Your task to perform on an android device: Go to Yahoo.com Image 0: 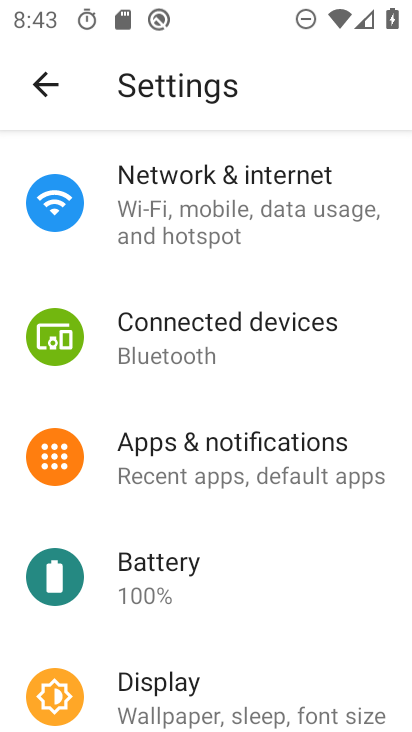
Step 0: press home button
Your task to perform on an android device: Go to Yahoo.com Image 1: 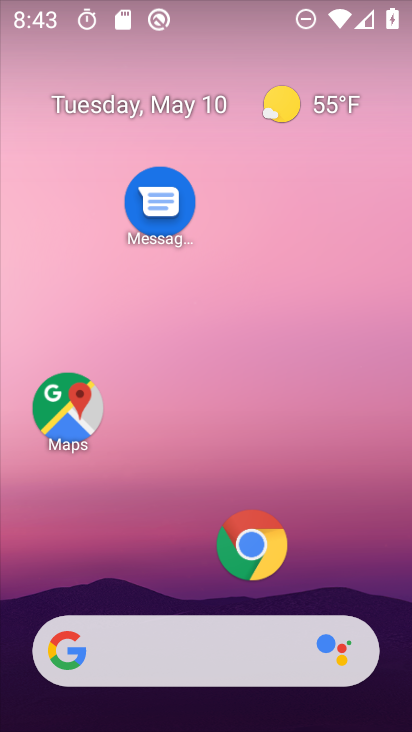
Step 1: drag from (160, 535) to (172, 169)
Your task to perform on an android device: Go to Yahoo.com Image 2: 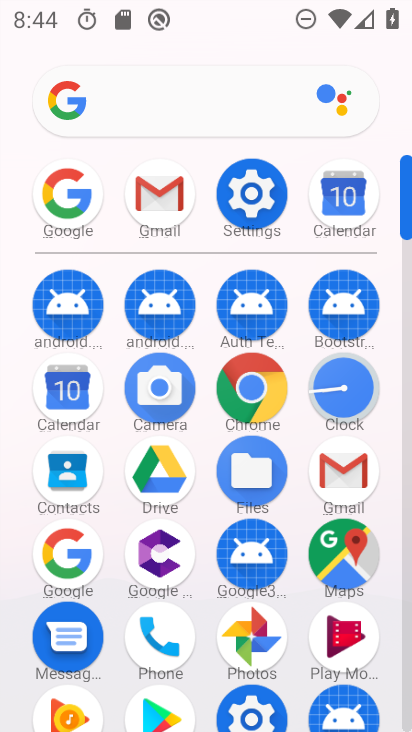
Step 2: click (78, 207)
Your task to perform on an android device: Go to Yahoo.com Image 3: 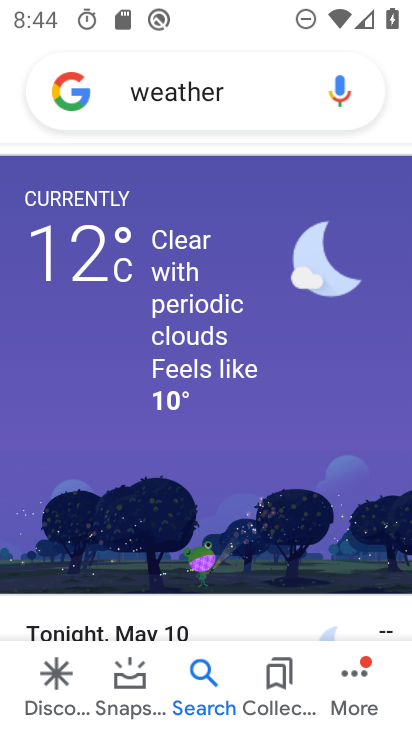
Step 3: click (250, 86)
Your task to perform on an android device: Go to Yahoo.com Image 4: 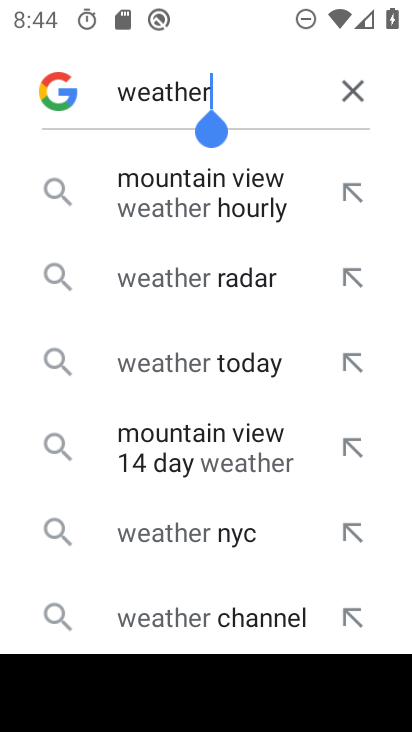
Step 4: click (348, 79)
Your task to perform on an android device: Go to Yahoo.com Image 5: 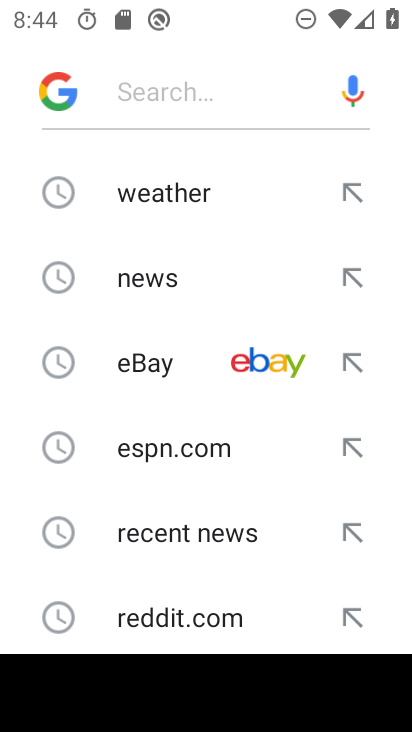
Step 5: type "Yahoo.com"
Your task to perform on an android device: Go to Yahoo.com Image 6: 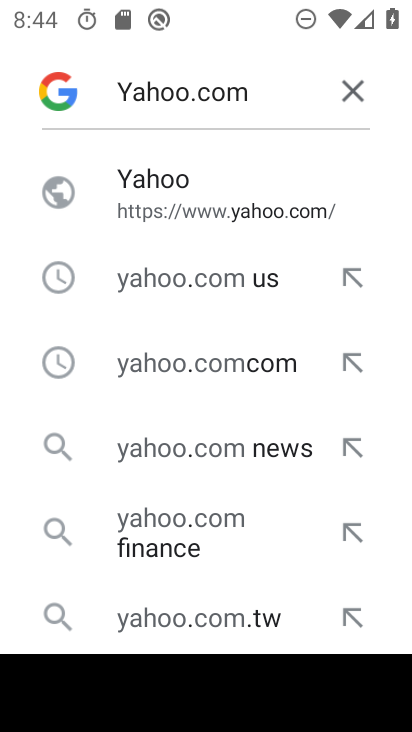
Step 6: click (163, 156)
Your task to perform on an android device: Go to Yahoo.com Image 7: 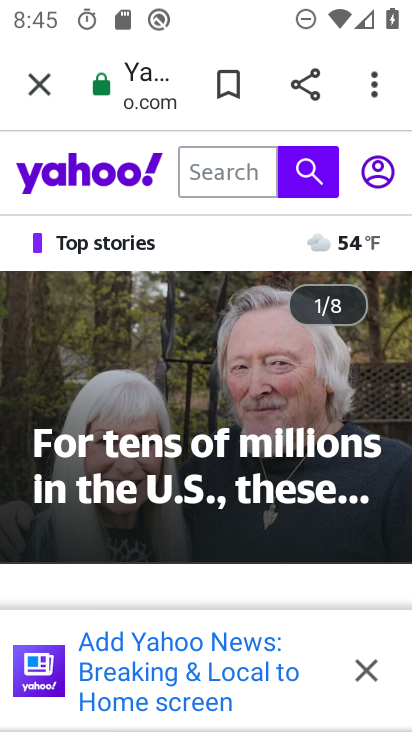
Step 7: task complete